Your task to perform on an android device: Open the calendar app, open the side menu, and click the "Day" option Image 0: 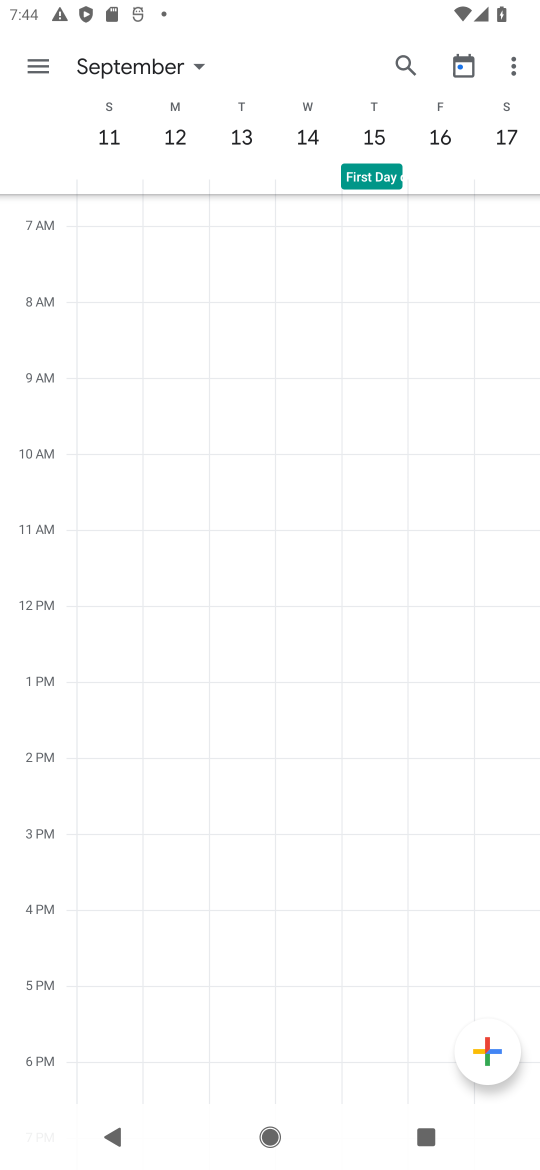
Step 0: press home button
Your task to perform on an android device: Open the calendar app, open the side menu, and click the "Day" option Image 1: 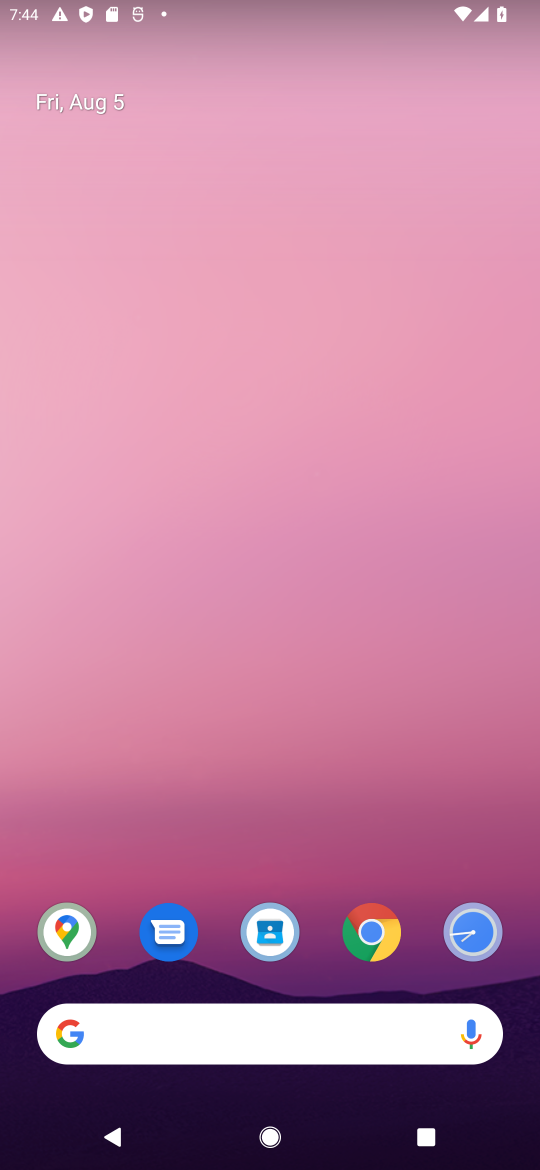
Step 1: drag from (171, 1017) to (283, 380)
Your task to perform on an android device: Open the calendar app, open the side menu, and click the "Day" option Image 2: 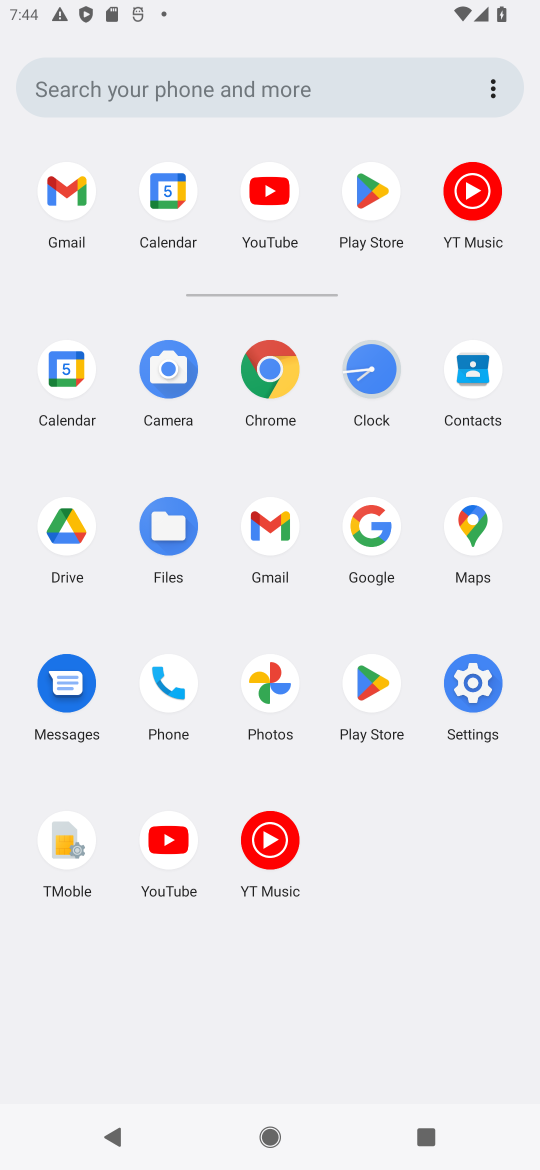
Step 2: click (70, 364)
Your task to perform on an android device: Open the calendar app, open the side menu, and click the "Day" option Image 3: 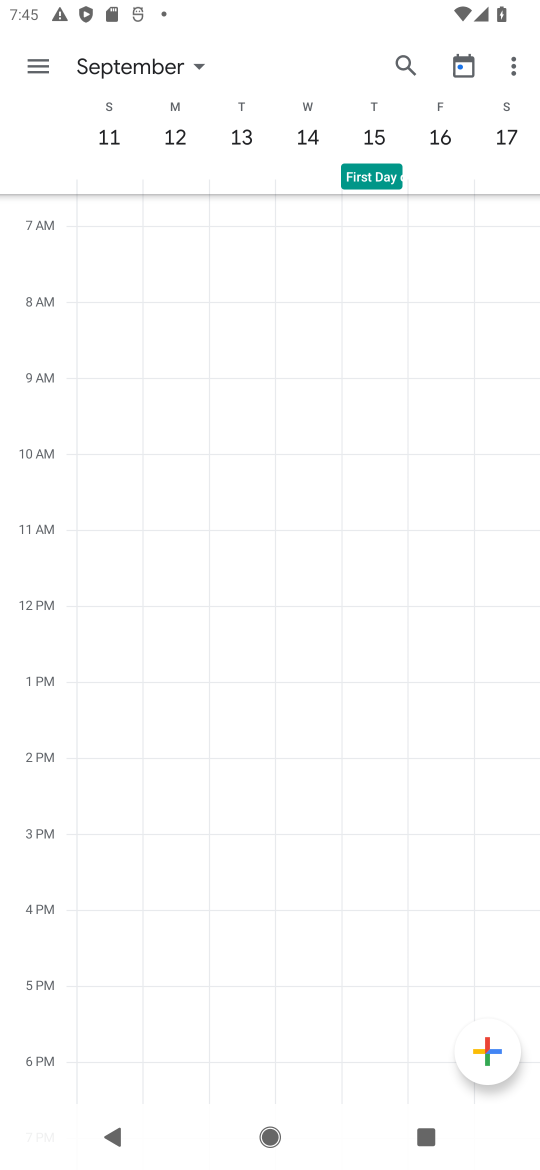
Step 3: click (45, 67)
Your task to perform on an android device: Open the calendar app, open the side menu, and click the "Day" option Image 4: 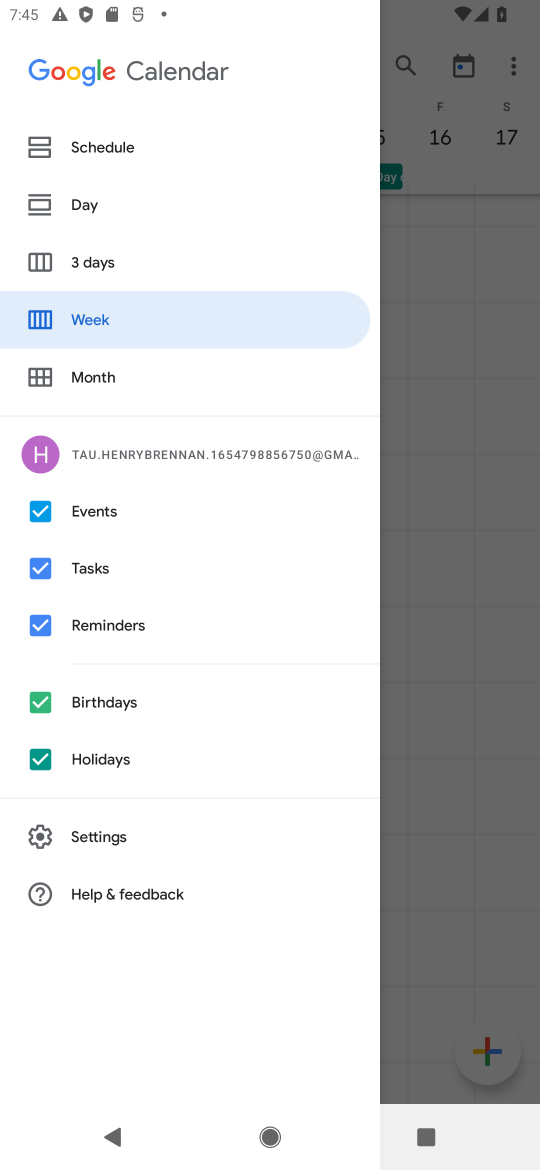
Step 4: click (102, 205)
Your task to perform on an android device: Open the calendar app, open the side menu, and click the "Day" option Image 5: 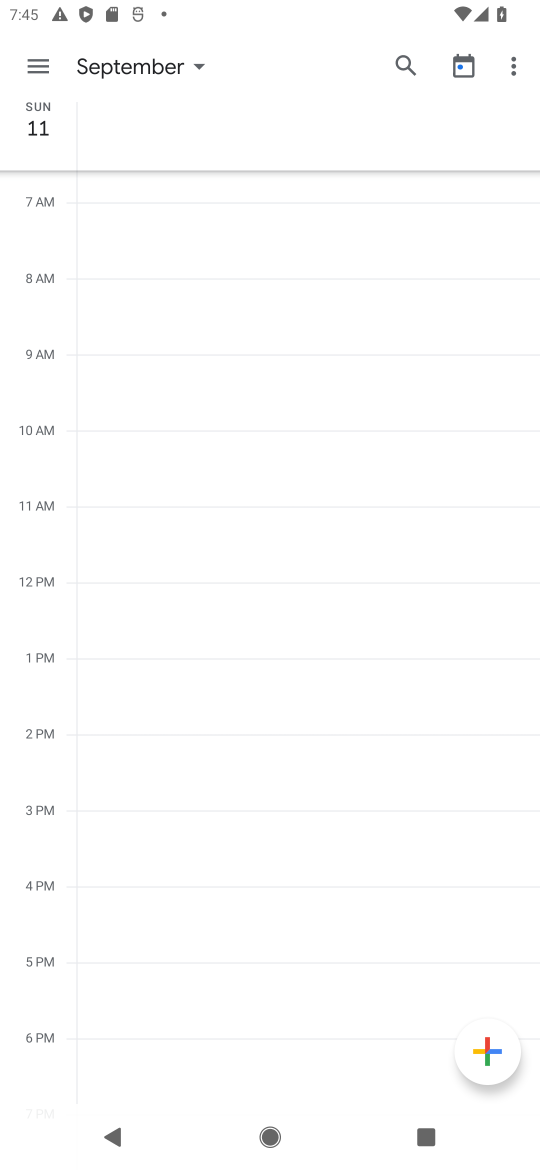
Step 5: task complete